Your task to perform on an android device: What is the recent news? Image 0: 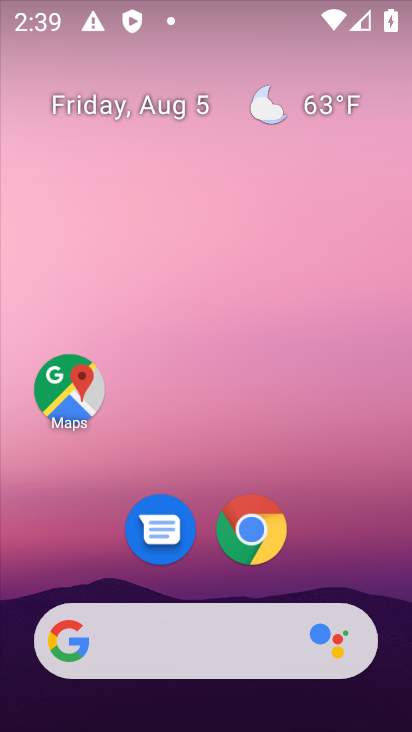
Step 0: click (73, 637)
Your task to perform on an android device: What is the recent news? Image 1: 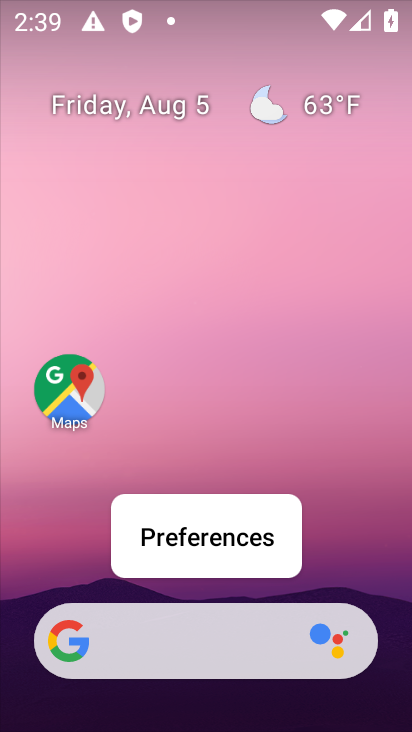
Step 1: click (69, 650)
Your task to perform on an android device: What is the recent news? Image 2: 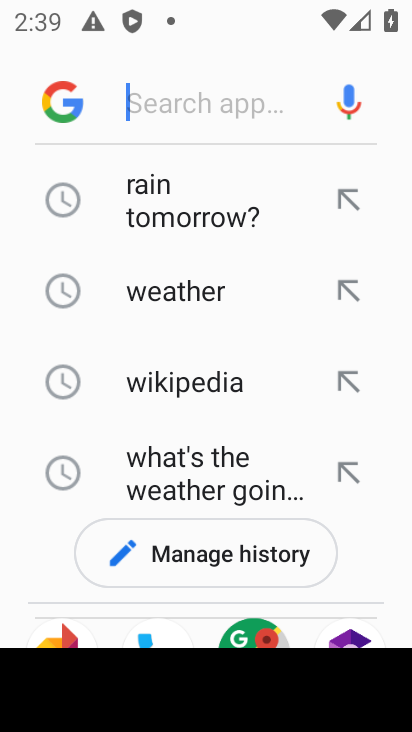
Step 2: type " recent news?"
Your task to perform on an android device: What is the recent news? Image 3: 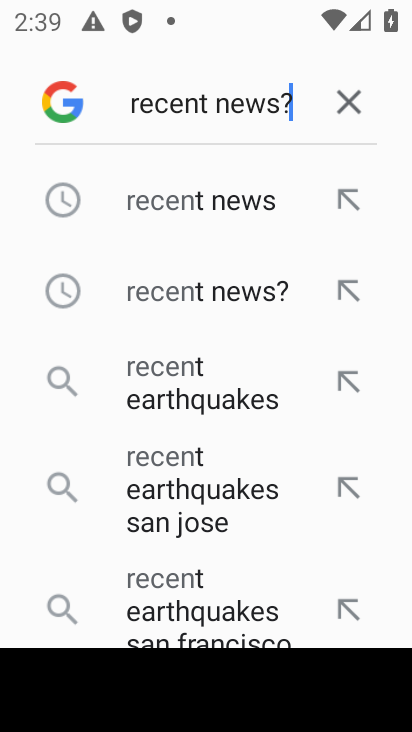
Step 3: press enter
Your task to perform on an android device: What is the recent news? Image 4: 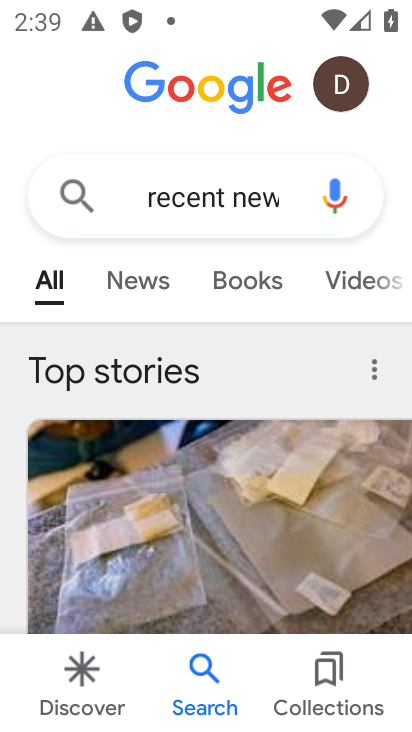
Step 4: task complete